Your task to perform on an android device: Open calendar and show me the second week of next month Image 0: 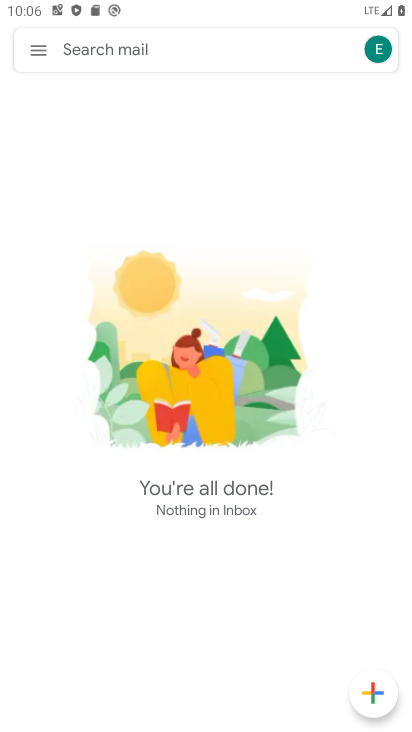
Step 0: press home button
Your task to perform on an android device: Open calendar and show me the second week of next month Image 1: 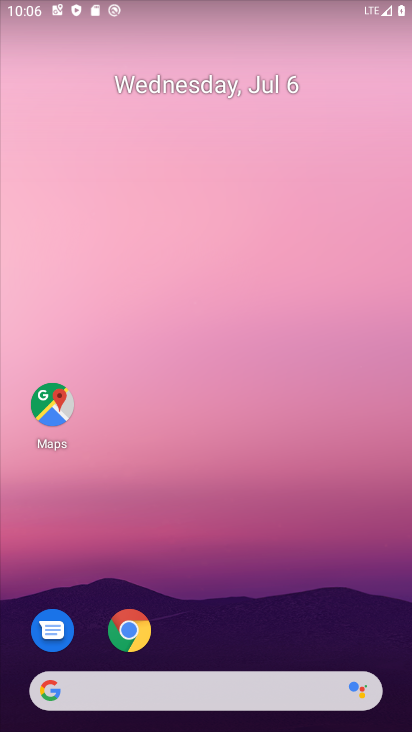
Step 1: drag from (378, 636) to (326, 168)
Your task to perform on an android device: Open calendar and show me the second week of next month Image 2: 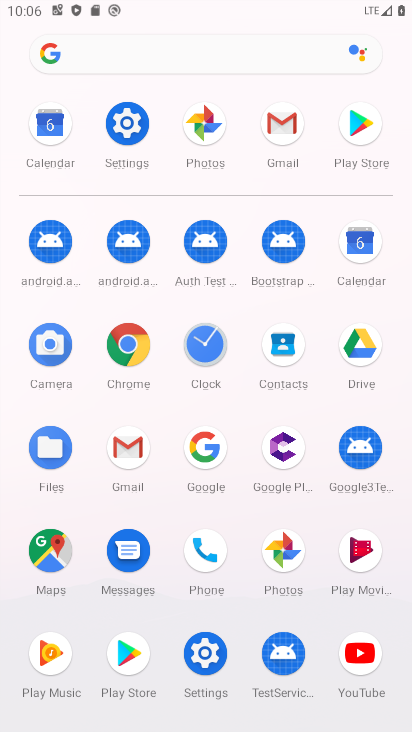
Step 2: click (359, 247)
Your task to perform on an android device: Open calendar and show me the second week of next month Image 3: 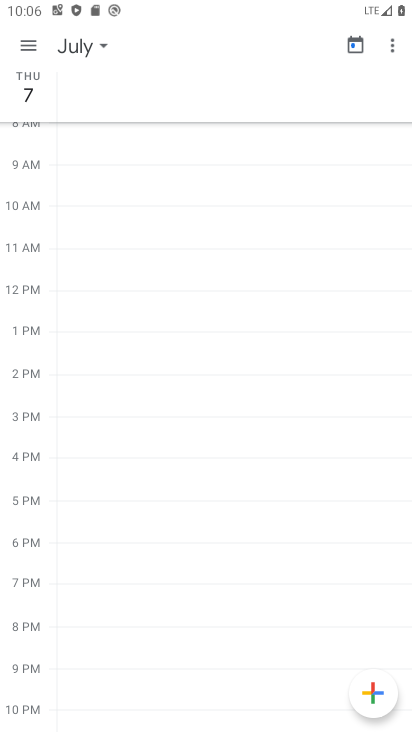
Step 3: click (25, 40)
Your task to perform on an android device: Open calendar and show me the second week of next month Image 4: 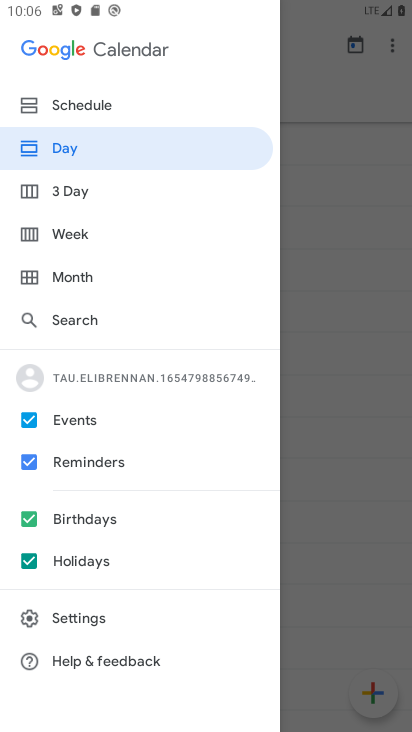
Step 4: click (72, 235)
Your task to perform on an android device: Open calendar and show me the second week of next month Image 5: 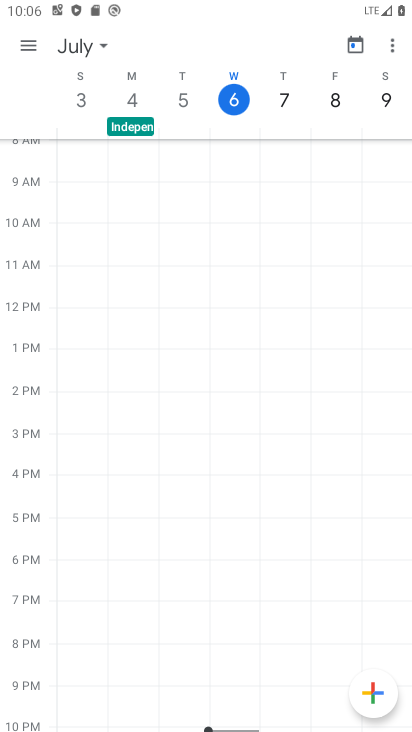
Step 5: click (96, 43)
Your task to perform on an android device: Open calendar and show me the second week of next month Image 6: 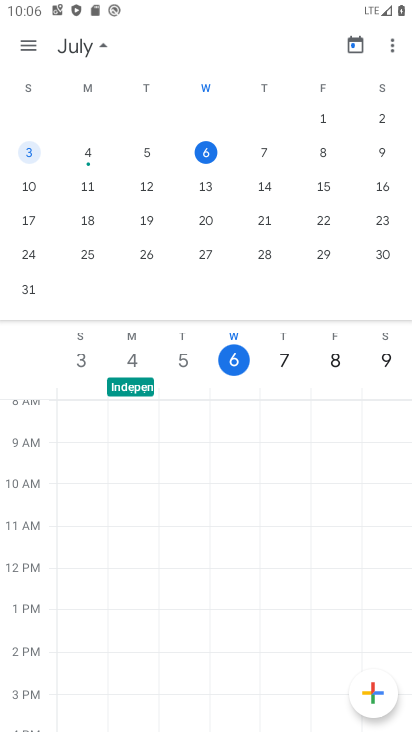
Step 6: click (29, 183)
Your task to perform on an android device: Open calendar and show me the second week of next month Image 7: 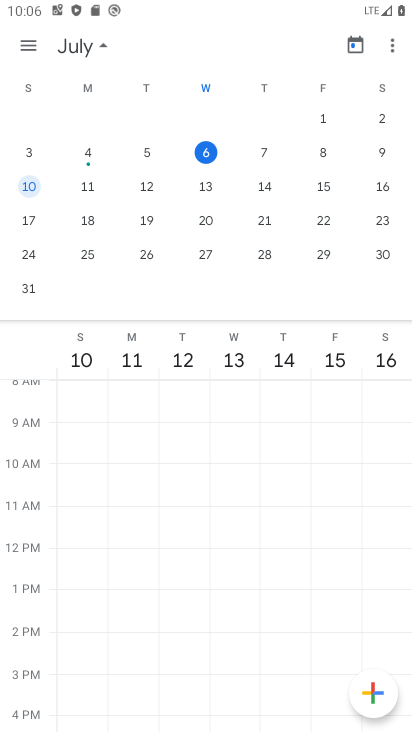
Step 7: task complete